Your task to perform on an android device: Open privacy settings Image 0: 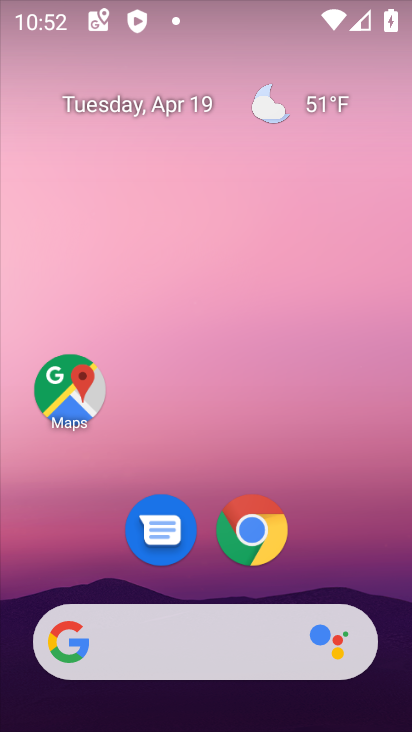
Step 0: click (275, 529)
Your task to perform on an android device: Open privacy settings Image 1: 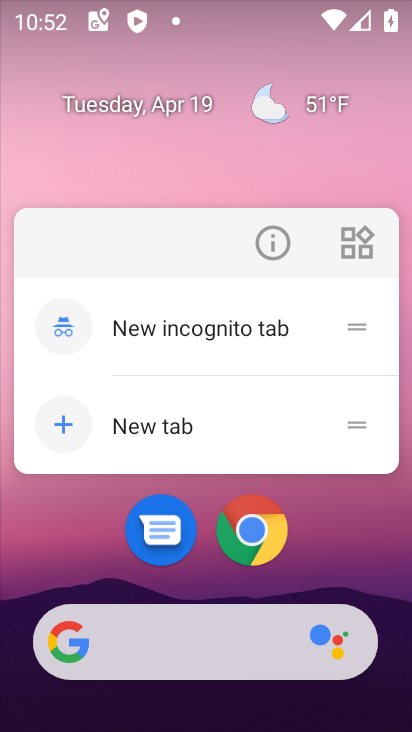
Step 1: click (275, 527)
Your task to perform on an android device: Open privacy settings Image 2: 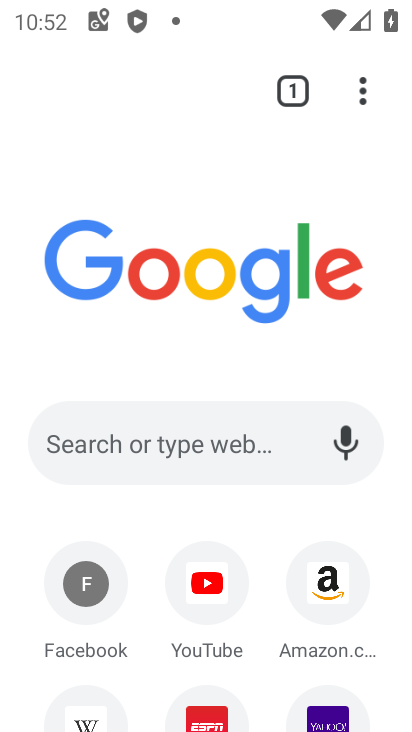
Step 2: click (359, 85)
Your task to perform on an android device: Open privacy settings Image 3: 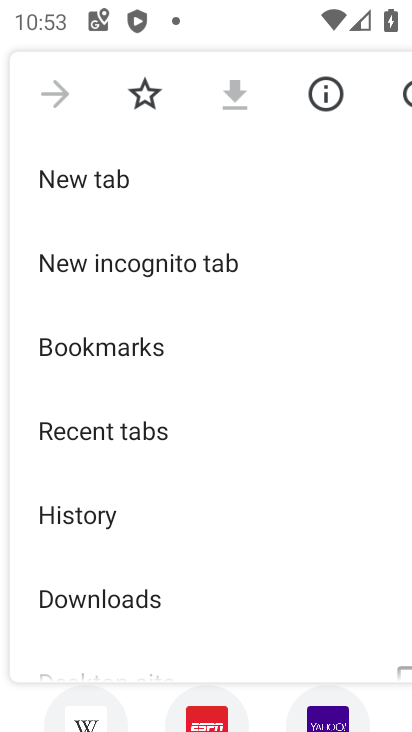
Step 3: drag from (172, 477) to (178, 329)
Your task to perform on an android device: Open privacy settings Image 4: 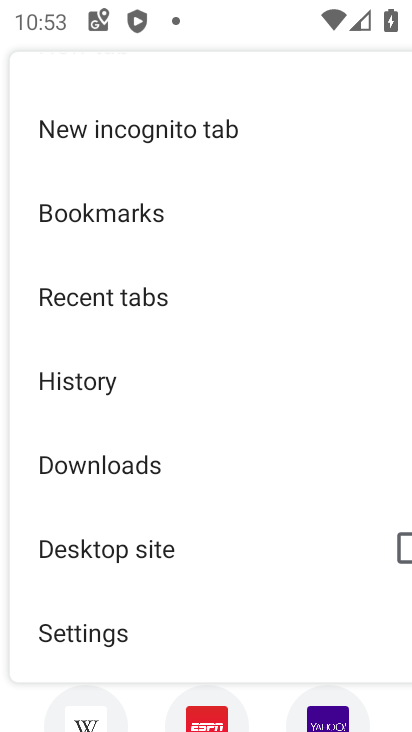
Step 4: click (151, 628)
Your task to perform on an android device: Open privacy settings Image 5: 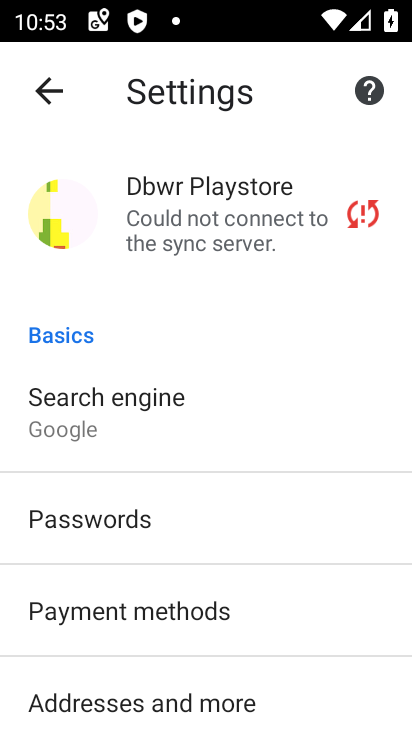
Step 5: drag from (295, 585) to (269, 278)
Your task to perform on an android device: Open privacy settings Image 6: 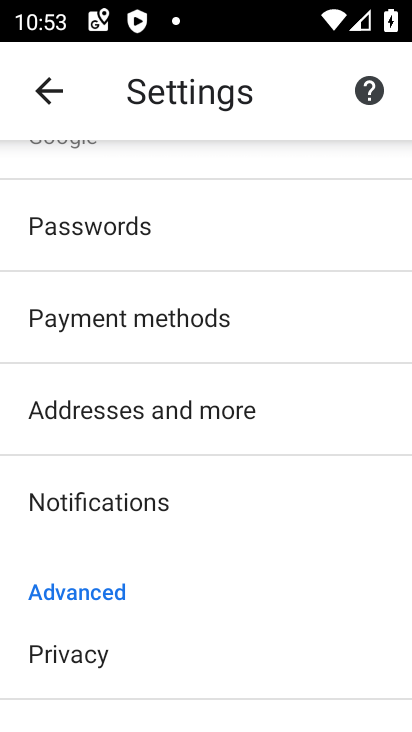
Step 6: click (127, 644)
Your task to perform on an android device: Open privacy settings Image 7: 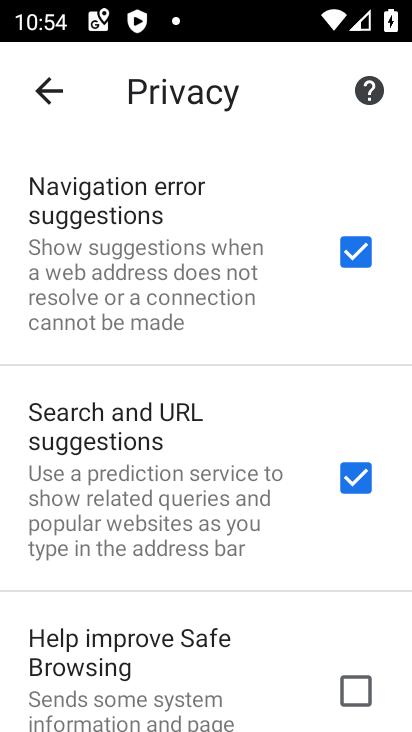
Step 7: task complete